Your task to perform on an android device: turn off notifications settings in the gmail app Image 0: 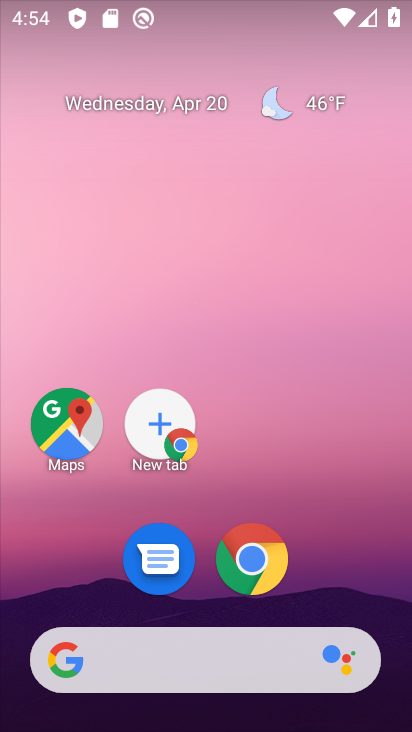
Step 0: drag from (353, 593) to (297, 233)
Your task to perform on an android device: turn off notifications settings in the gmail app Image 1: 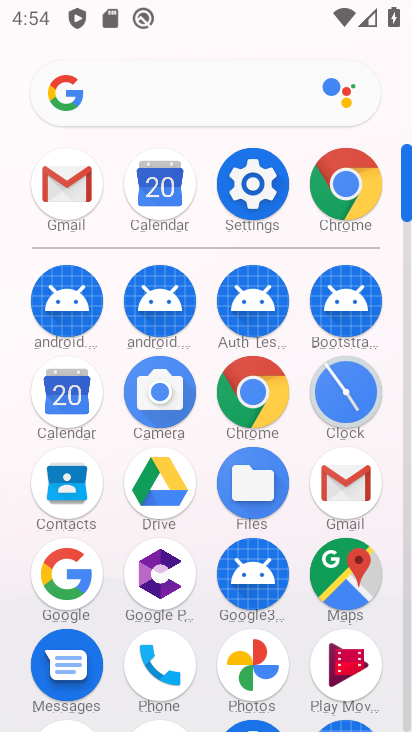
Step 1: click (332, 474)
Your task to perform on an android device: turn off notifications settings in the gmail app Image 2: 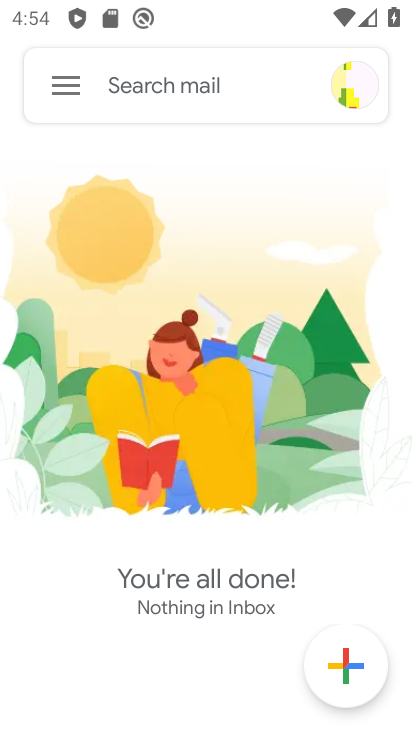
Step 2: click (52, 72)
Your task to perform on an android device: turn off notifications settings in the gmail app Image 3: 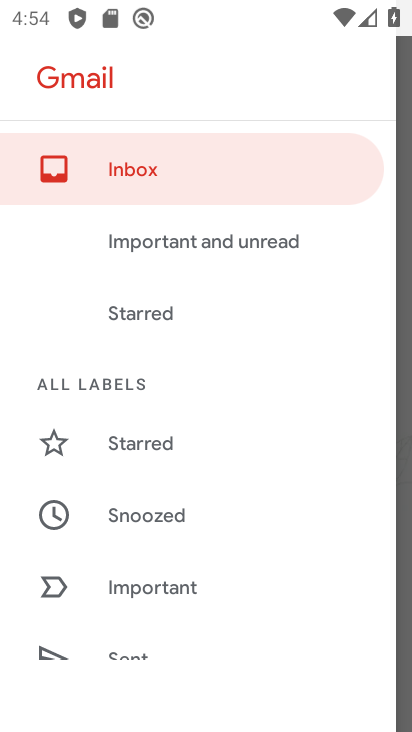
Step 3: drag from (142, 540) to (204, 249)
Your task to perform on an android device: turn off notifications settings in the gmail app Image 4: 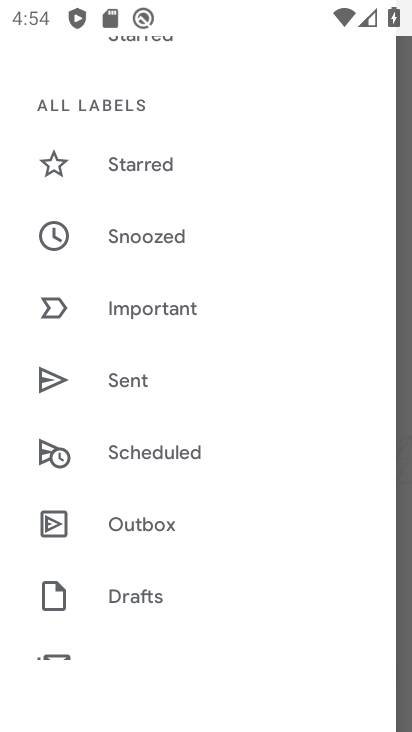
Step 4: drag from (152, 568) to (140, 168)
Your task to perform on an android device: turn off notifications settings in the gmail app Image 5: 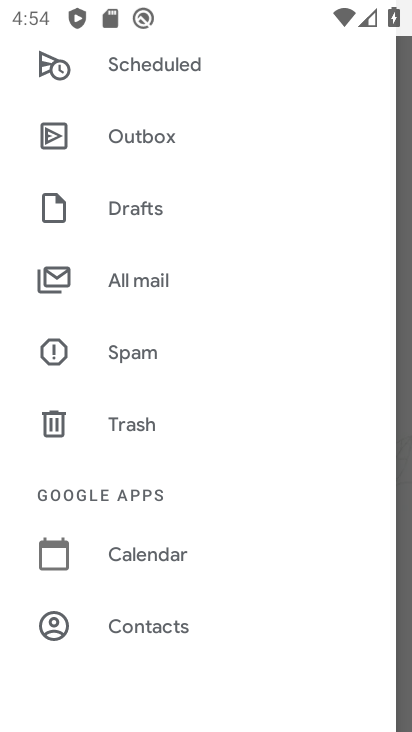
Step 5: drag from (144, 588) to (157, 149)
Your task to perform on an android device: turn off notifications settings in the gmail app Image 6: 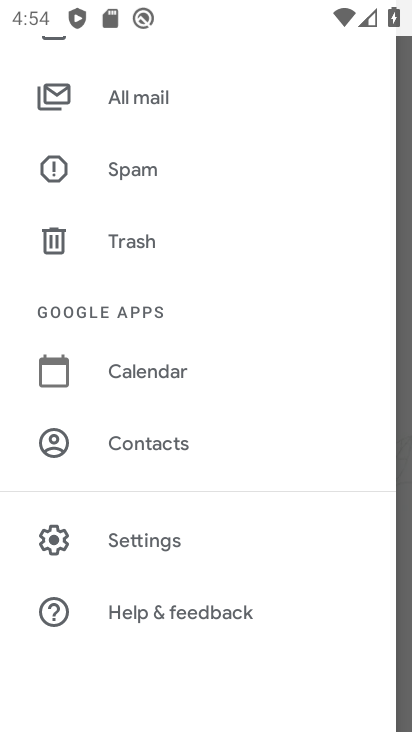
Step 6: click (133, 533)
Your task to perform on an android device: turn off notifications settings in the gmail app Image 7: 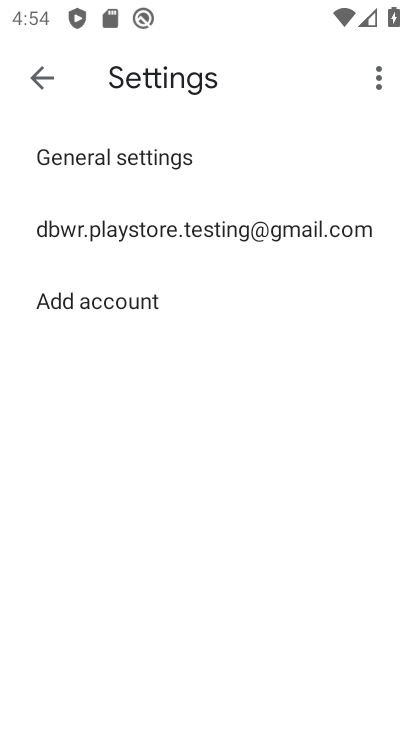
Step 7: click (143, 162)
Your task to perform on an android device: turn off notifications settings in the gmail app Image 8: 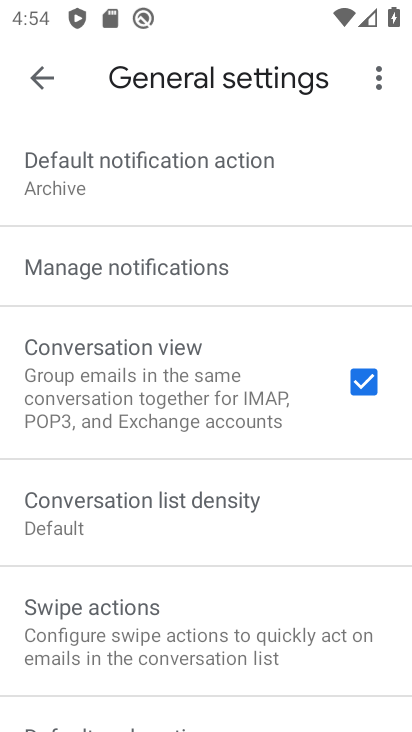
Step 8: click (183, 279)
Your task to perform on an android device: turn off notifications settings in the gmail app Image 9: 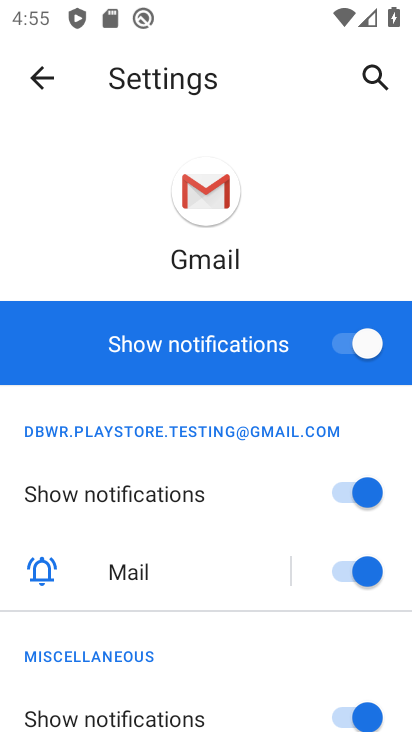
Step 9: click (339, 339)
Your task to perform on an android device: turn off notifications settings in the gmail app Image 10: 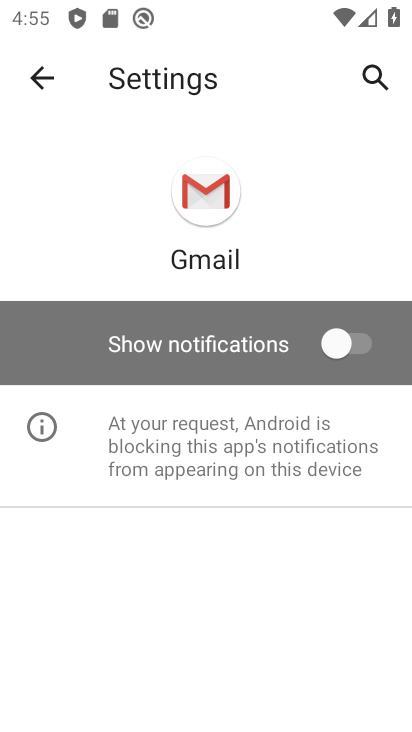
Step 10: task complete